Your task to perform on an android device: Open accessibility settings Image 0: 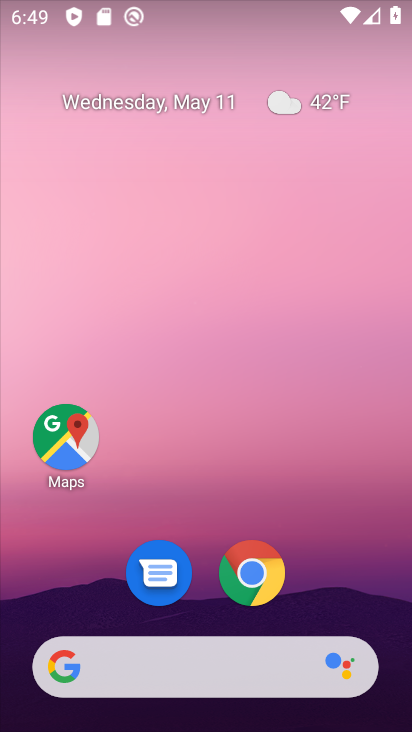
Step 0: drag from (310, 591) to (293, 220)
Your task to perform on an android device: Open accessibility settings Image 1: 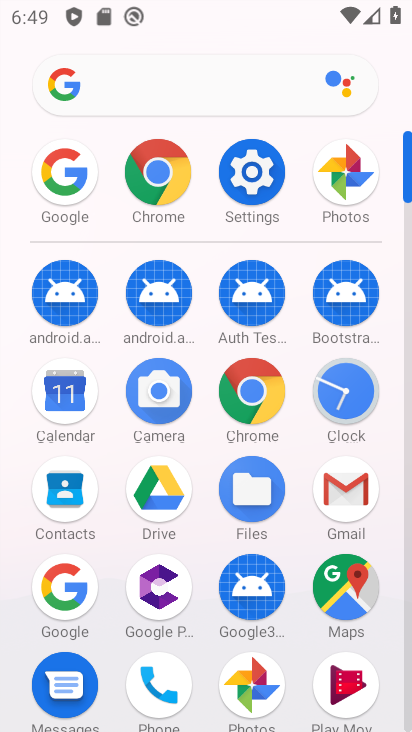
Step 1: click (253, 202)
Your task to perform on an android device: Open accessibility settings Image 2: 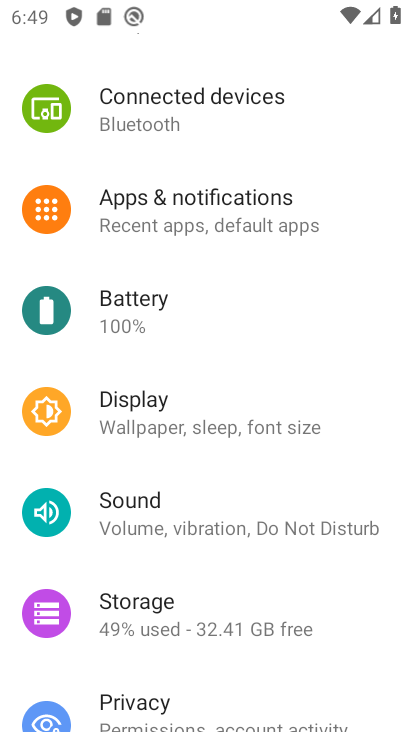
Step 2: drag from (204, 666) to (220, 267)
Your task to perform on an android device: Open accessibility settings Image 3: 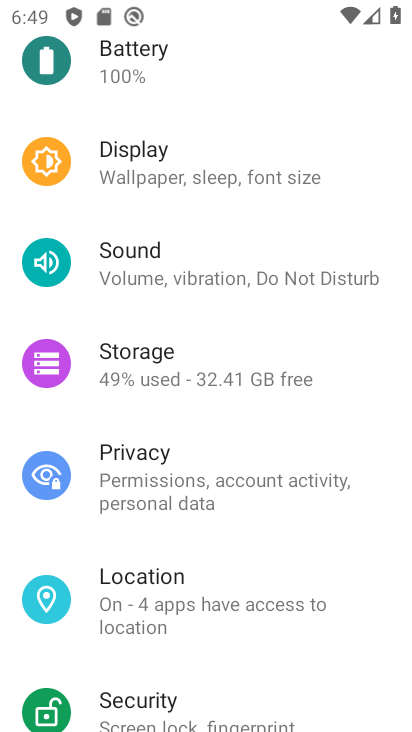
Step 3: drag from (186, 634) to (230, 354)
Your task to perform on an android device: Open accessibility settings Image 4: 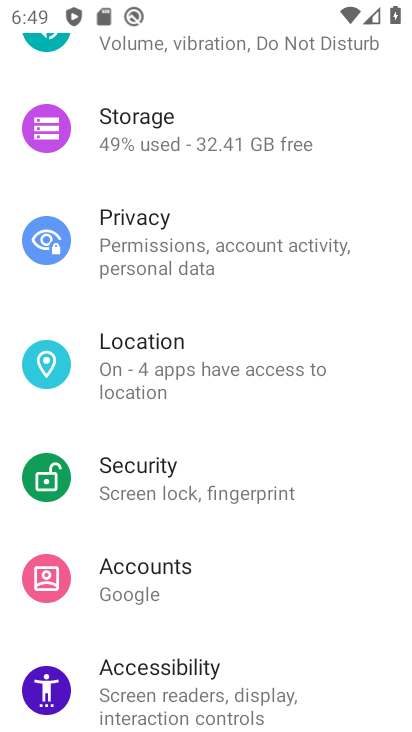
Step 4: click (169, 709)
Your task to perform on an android device: Open accessibility settings Image 5: 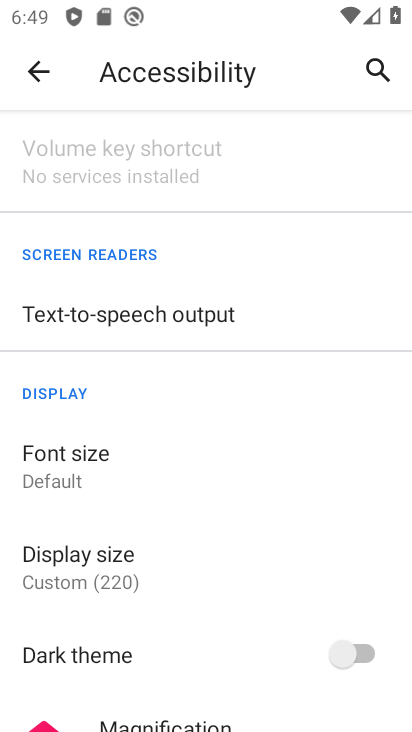
Step 5: task complete